Your task to perform on an android device: Go to calendar. Show me events next week Image 0: 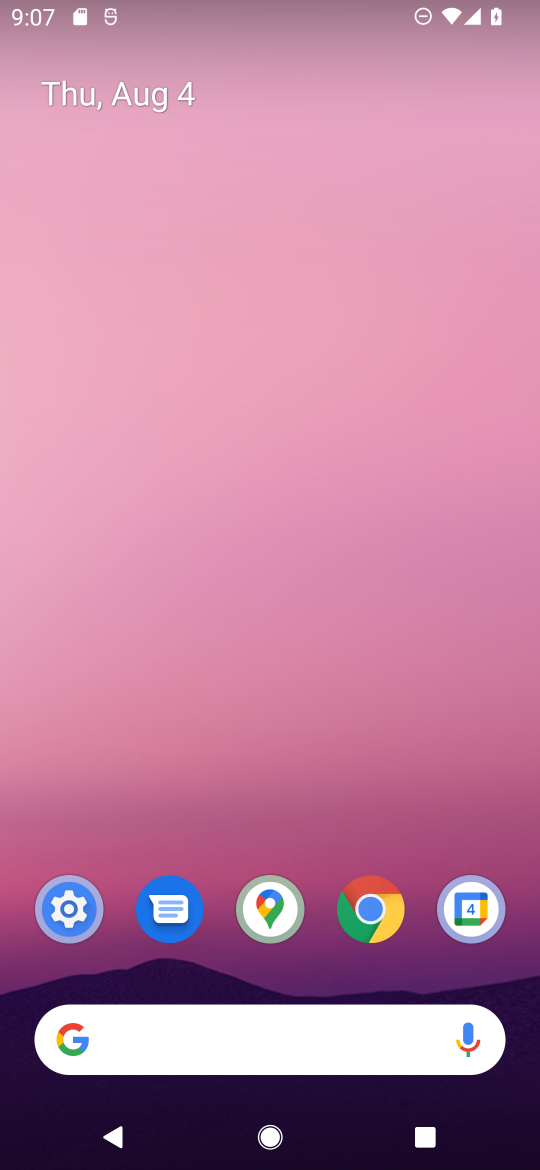
Step 0: press home button
Your task to perform on an android device: Go to calendar. Show me events next week Image 1: 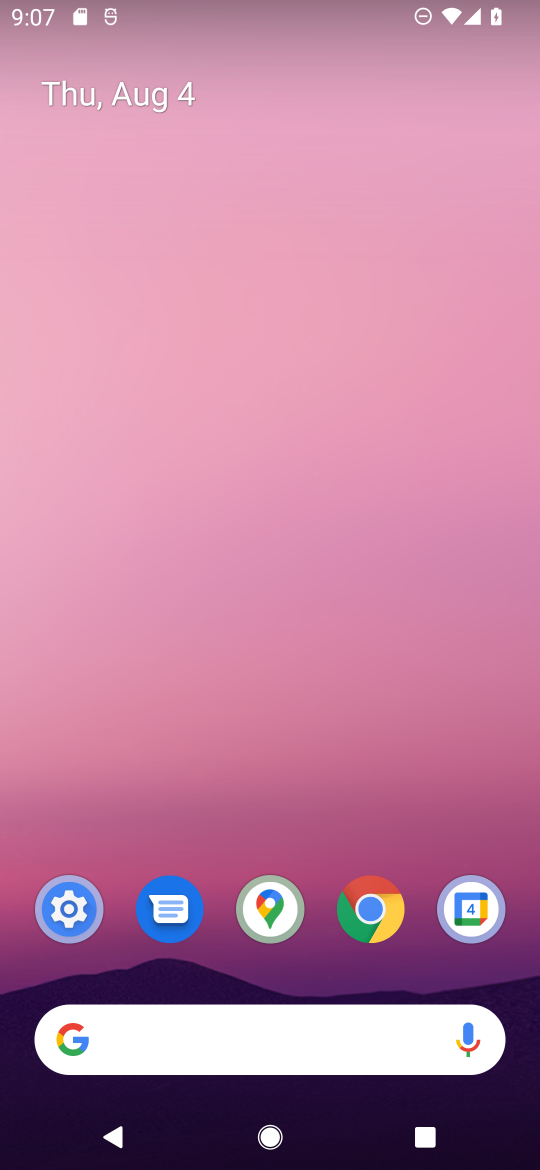
Step 1: drag from (329, 786) to (333, 287)
Your task to perform on an android device: Go to calendar. Show me events next week Image 2: 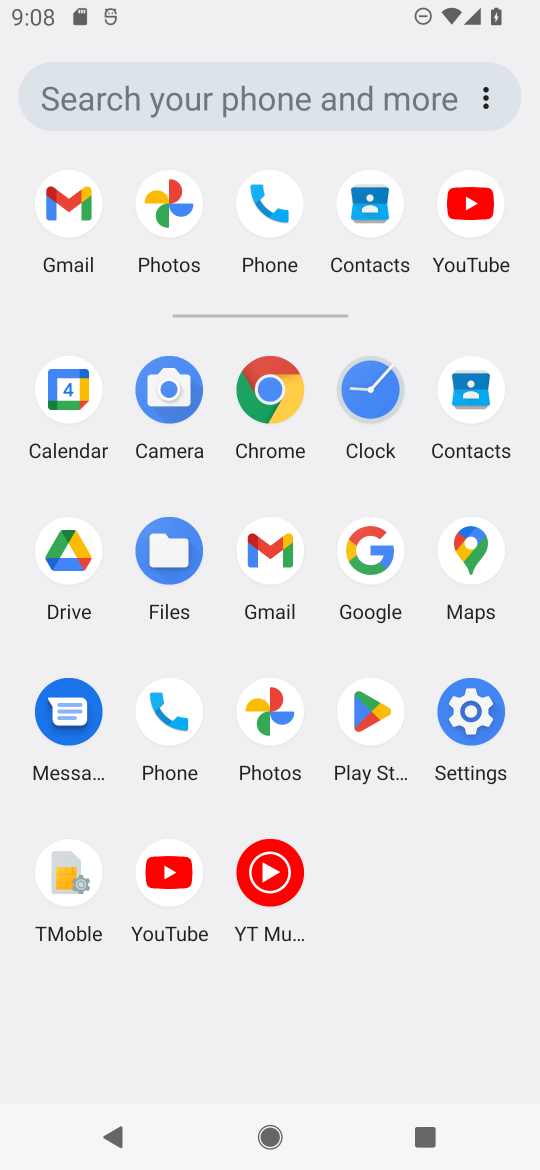
Step 2: click (76, 383)
Your task to perform on an android device: Go to calendar. Show me events next week Image 3: 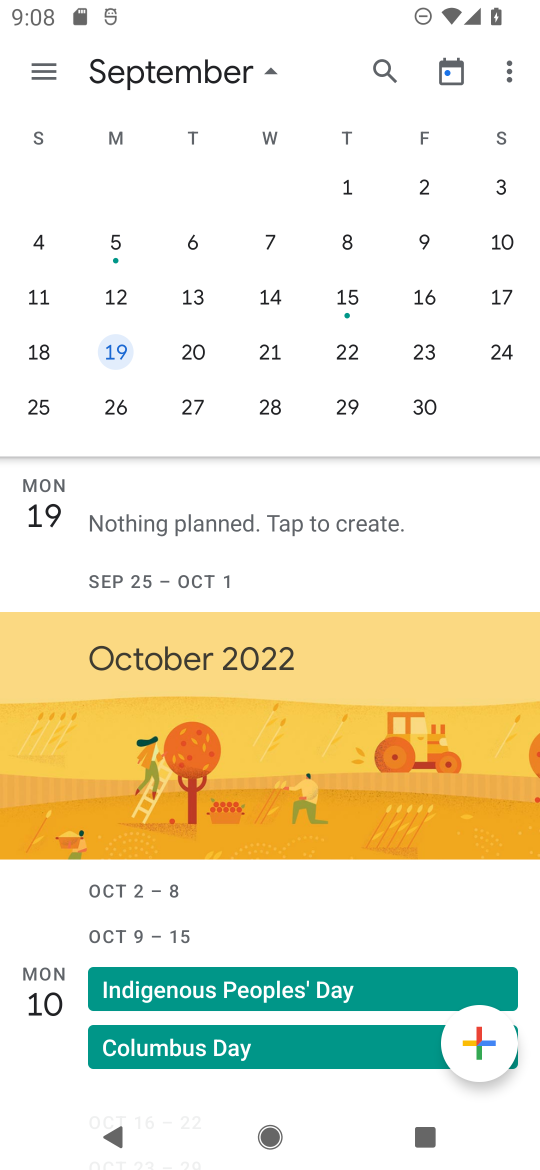
Step 3: task complete